Your task to perform on an android device: empty trash in the gmail app Image 0: 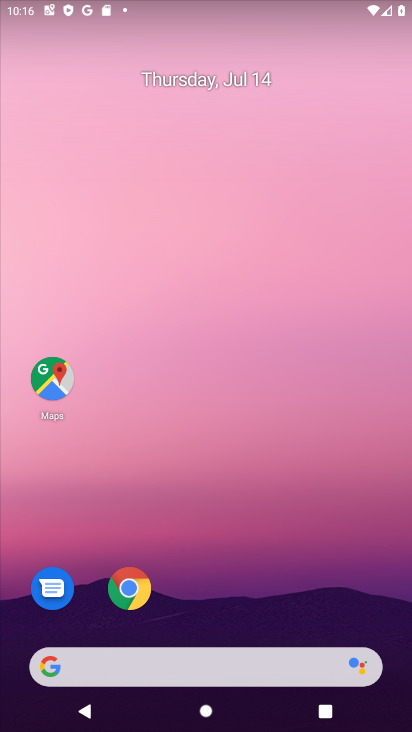
Step 0: drag from (116, 663) to (209, 152)
Your task to perform on an android device: empty trash in the gmail app Image 1: 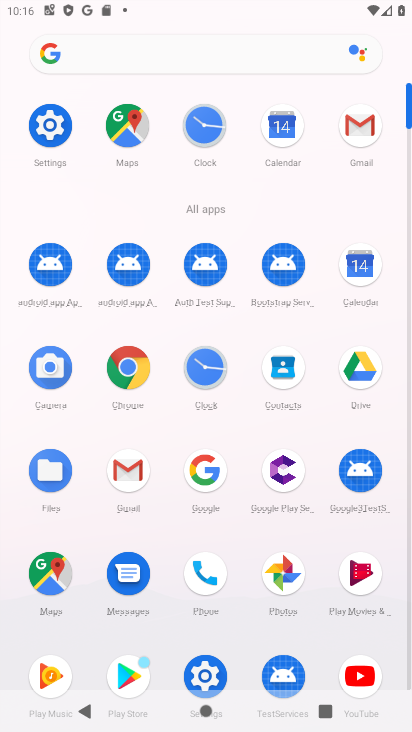
Step 1: click (134, 468)
Your task to perform on an android device: empty trash in the gmail app Image 2: 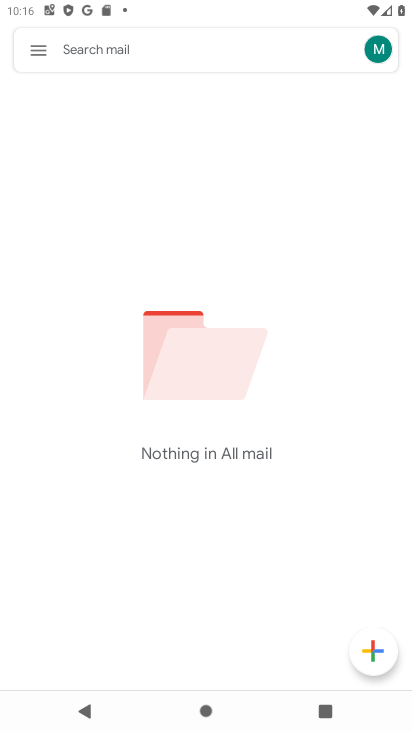
Step 2: click (40, 44)
Your task to perform on an android device: empty trash in the gmail app Image 3: 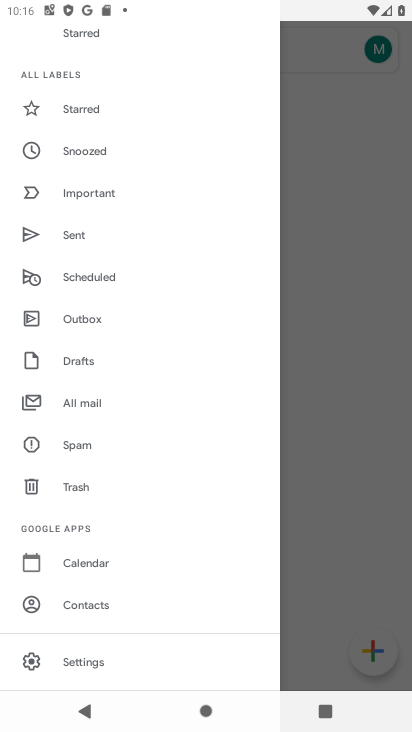
Step 3: click (65, 479)
Your task to perform on an android device: empty trash in the gmail app Image 4: 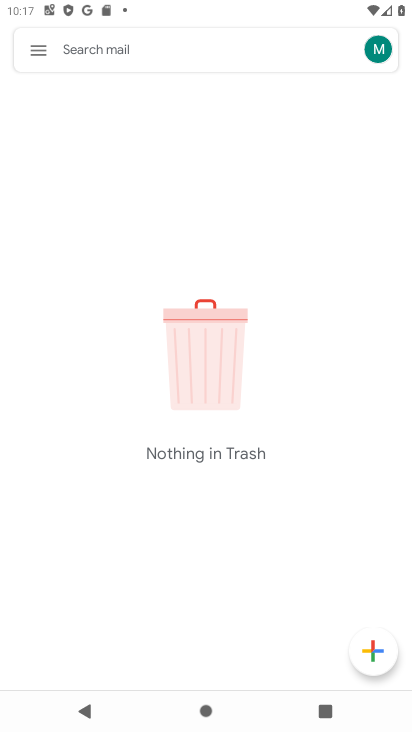
Step 4: task complete